Your task to perform on an android device: Open Yahoo.com Image 0: 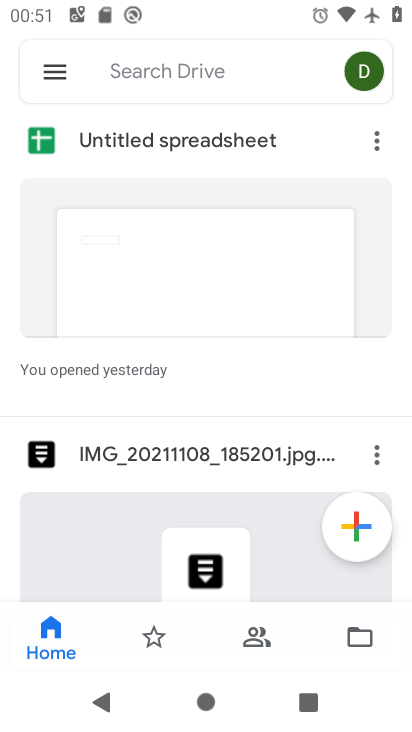
Step 0: press home button
Your task to perform on an android device: Open Yahoo.com Image 1: 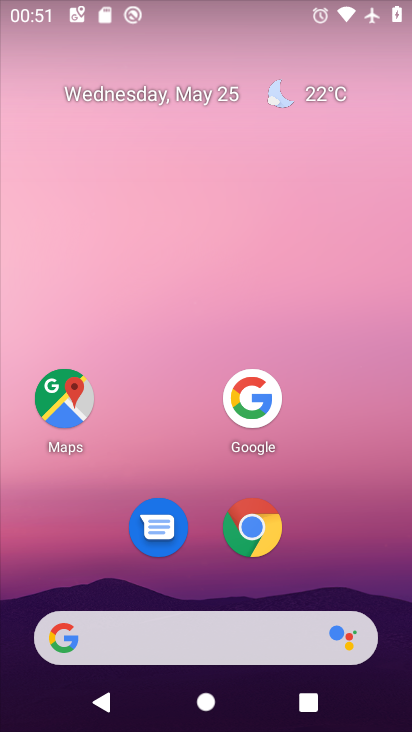
Step 1: click (251, 528)
Your task to perform on an android device: Open Yahoo.com Image 2: 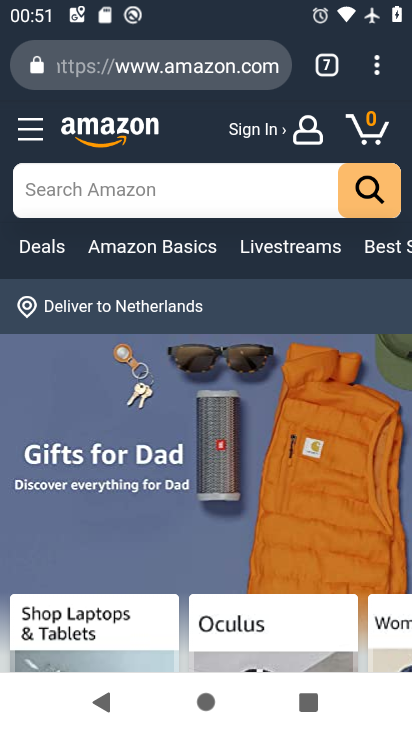
Step 2: drag from (381, 69) to (258, 136)
Your task to perform on an android device: Open Yahoo.com Image 3: 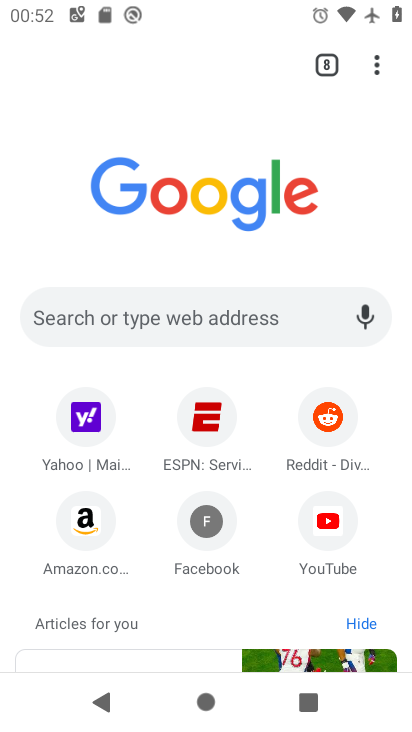
Step 3: click (90, 423)
Your task to perform on an android device: Open Yahoo.com Image 4: 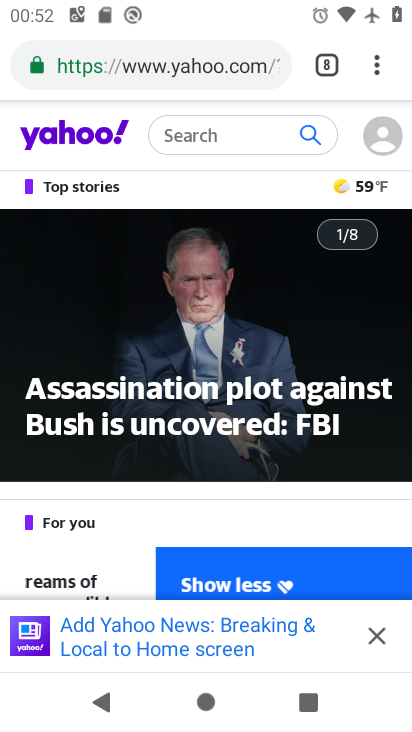
Step 4: task complete